Your task to perform on an android device: check data usage Image 0: 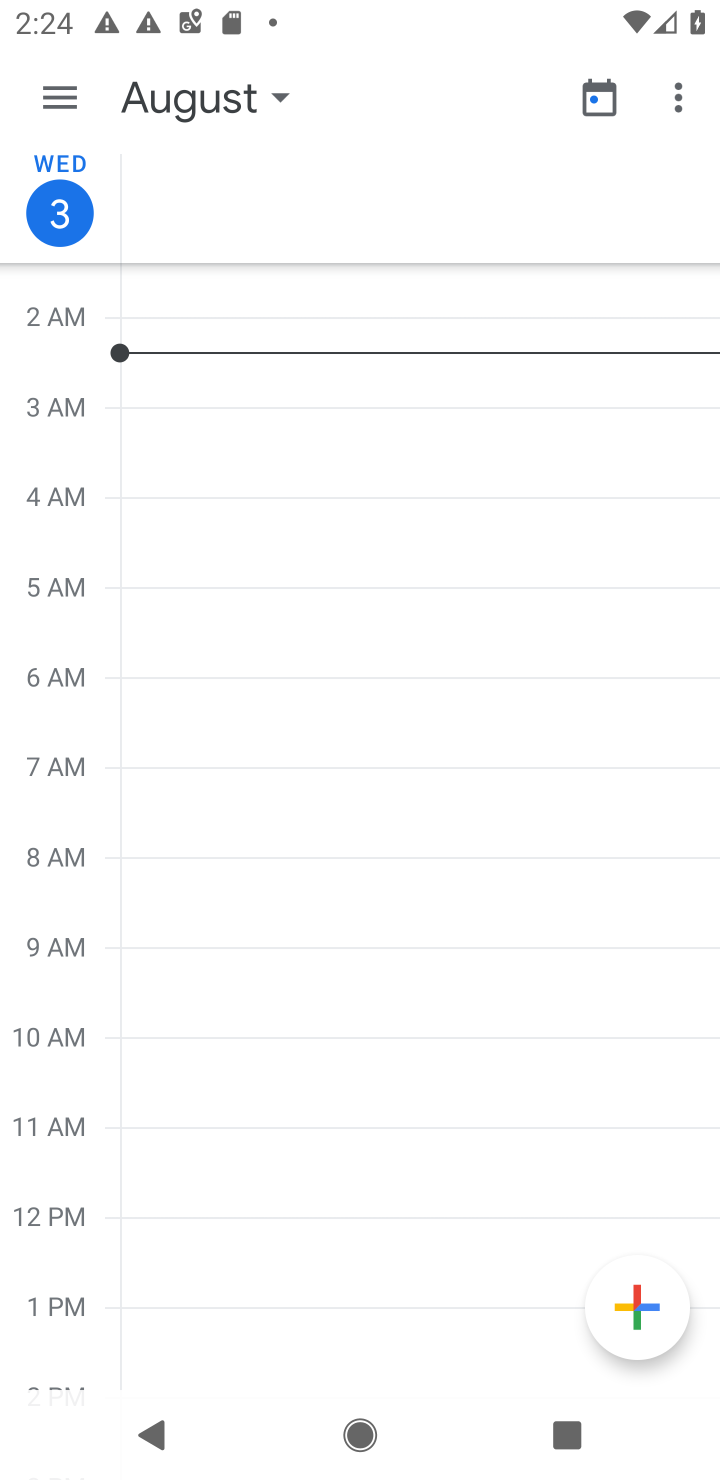
Step 0: press home button
Your task to perform on an android device: check data usage Image 1: 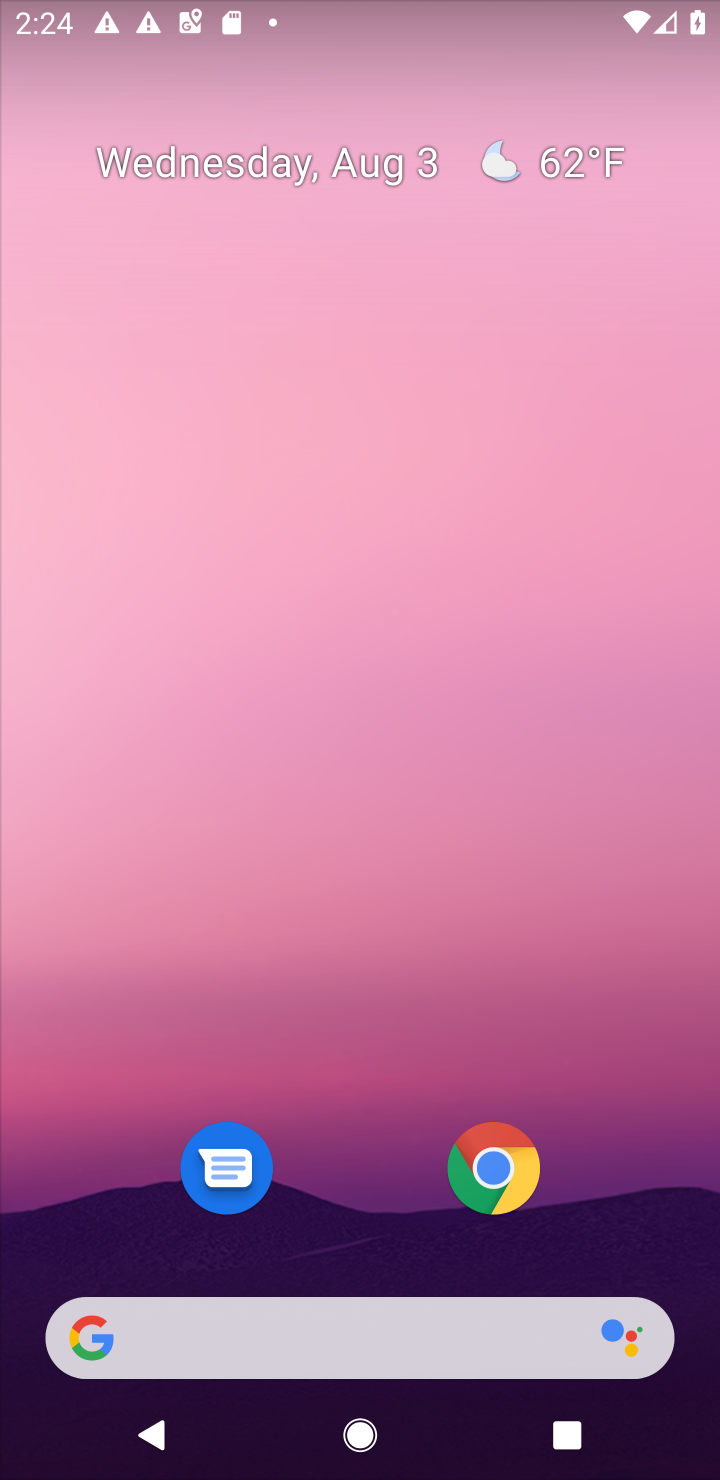
Step 1: drag from (643, 1215) to (605, 302)
Your task to perform on an android device: check data usage Image 2: 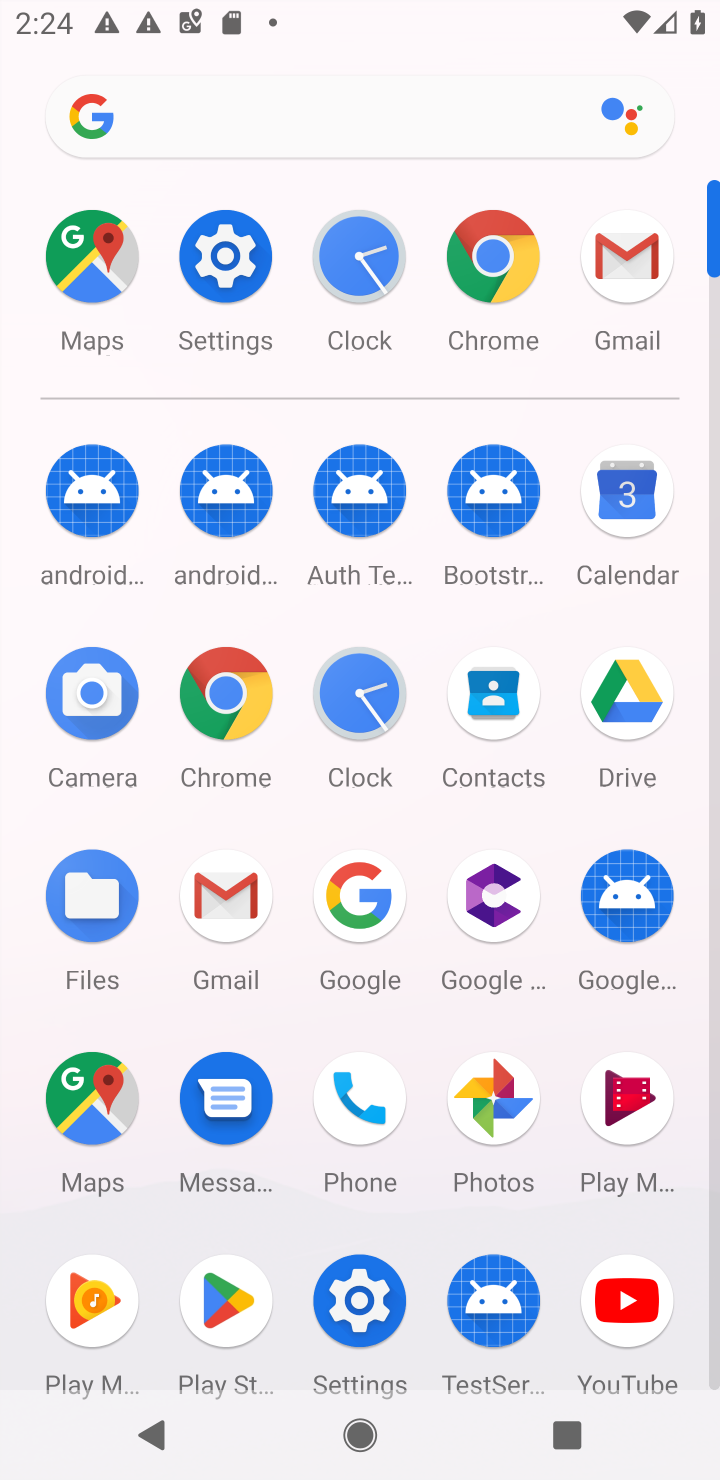
Step 2: click (361, 1302)
Your task to perform on an android device: check data usage Image 3: 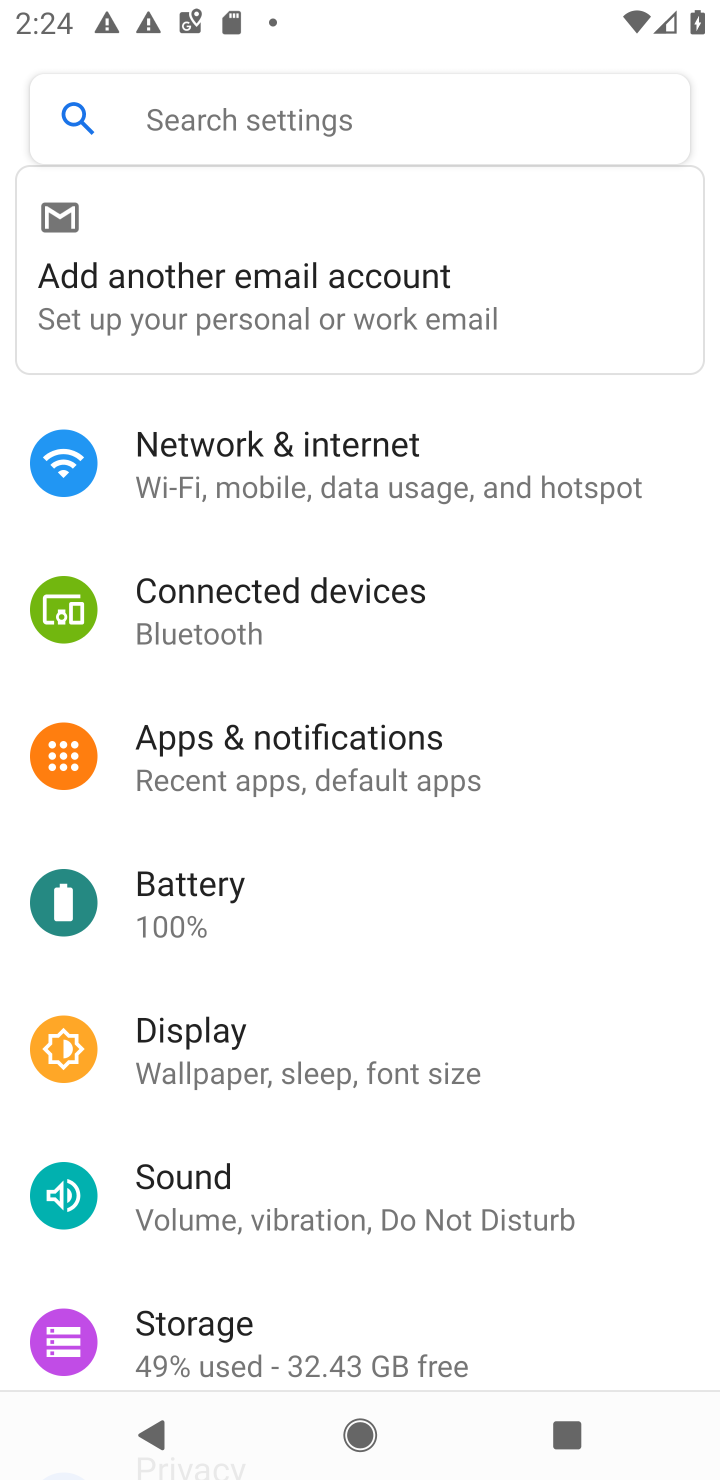
Step 3: click (277, 454)
Your task to perform on an android device: check data usage Image 4: 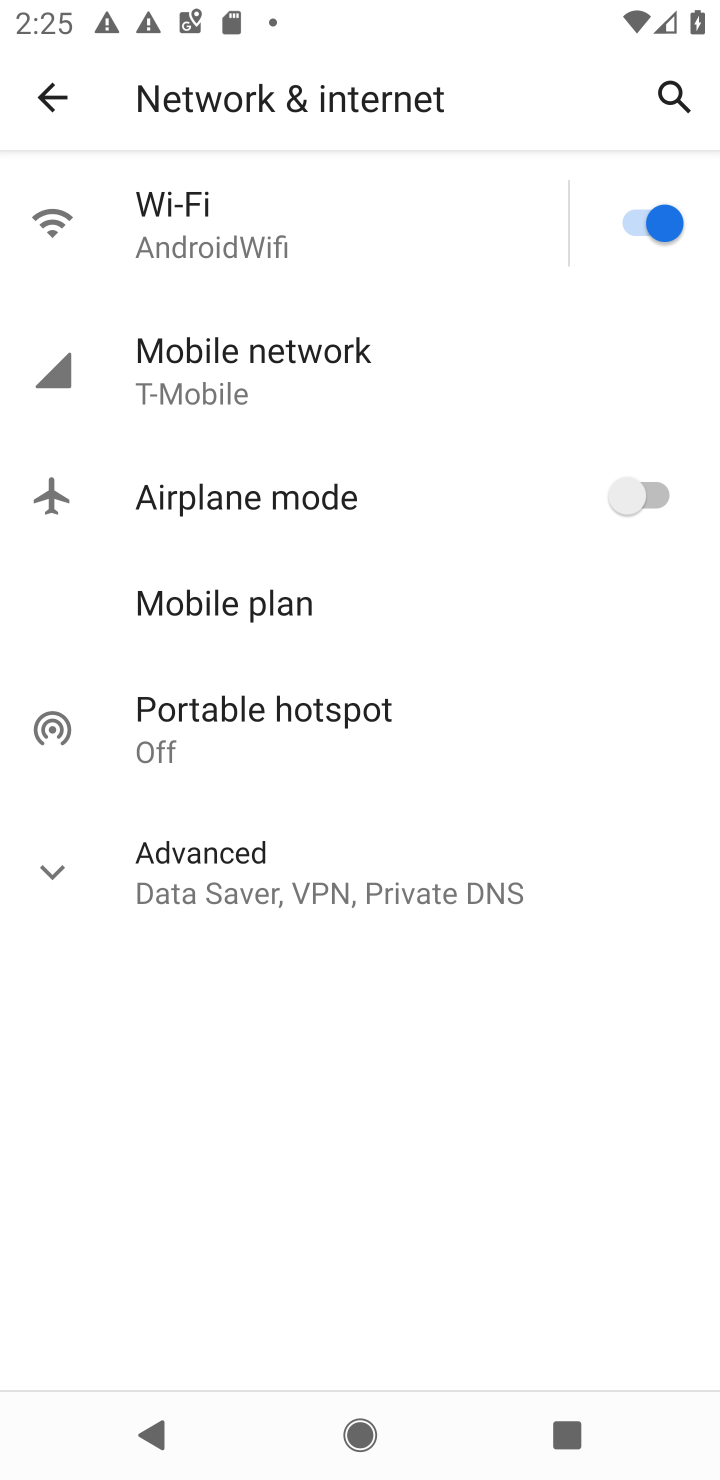
Step 4: click (203, 346)
Your task to perform on an android device: check data usage Image 5: 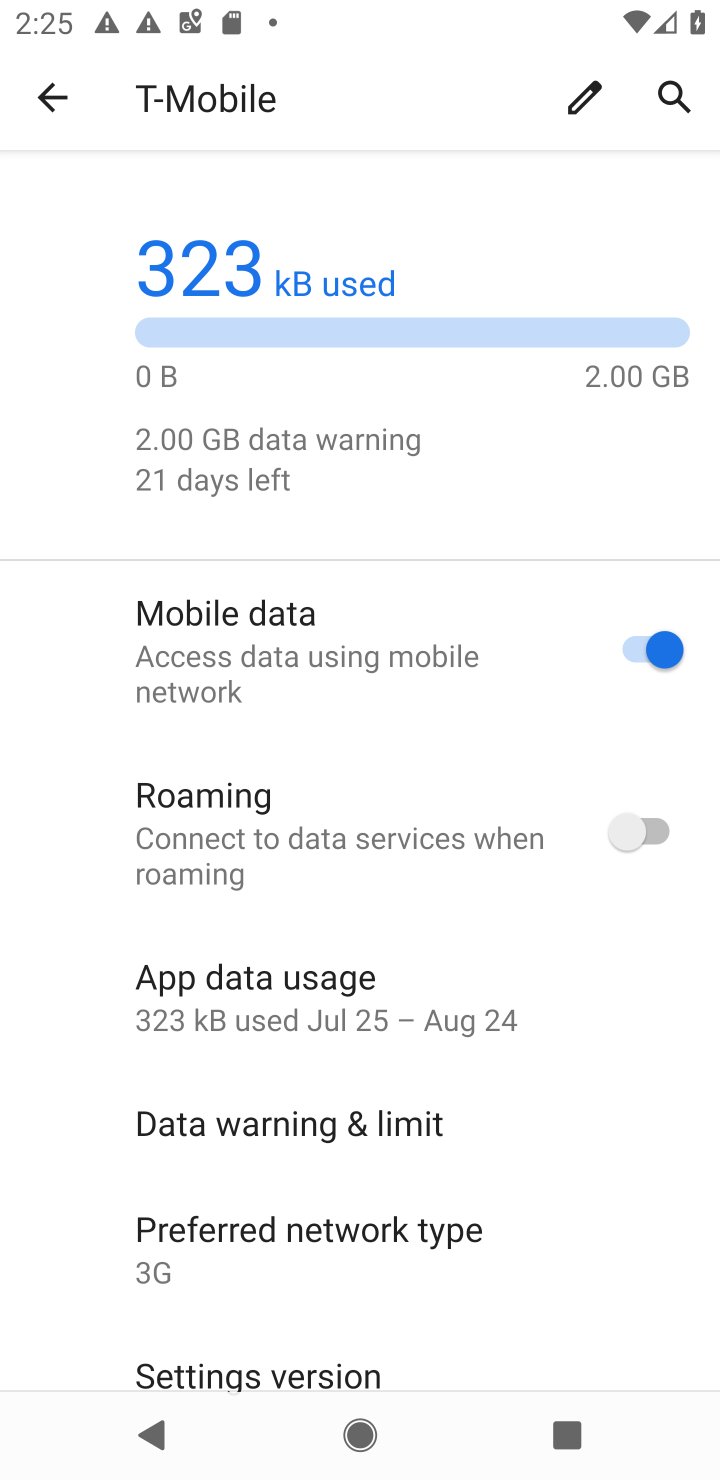
Step 5: task complete